Your task to perform on an android device: What's the weather today? Image 0: 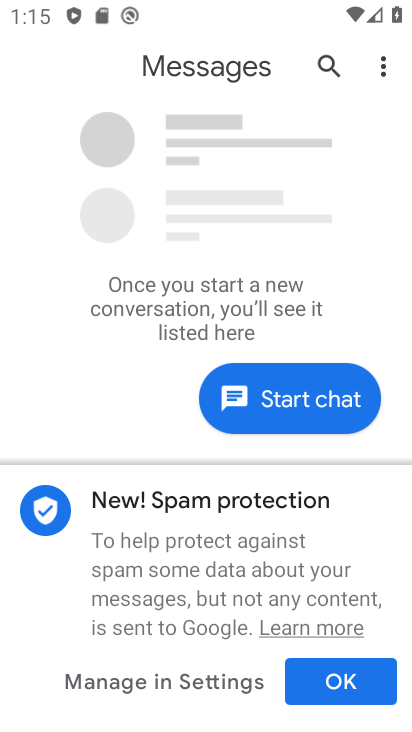
Step 0: press home button
Your task to perform on an android device: What's the weather today? Image 1: 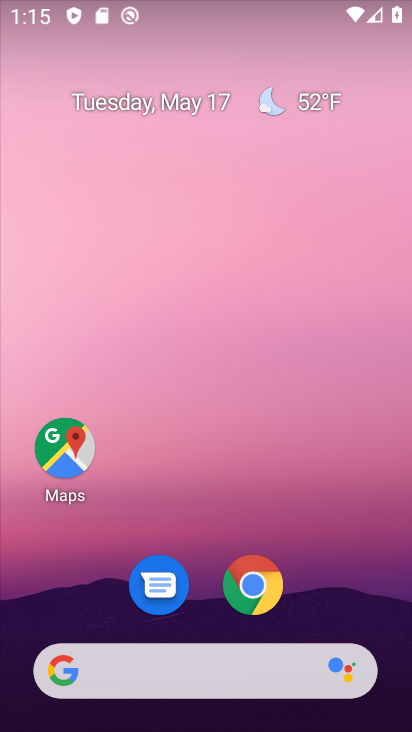
Step 1: click (271, 674)
Your task to perform on an android device: What's the weather today? Image 2: 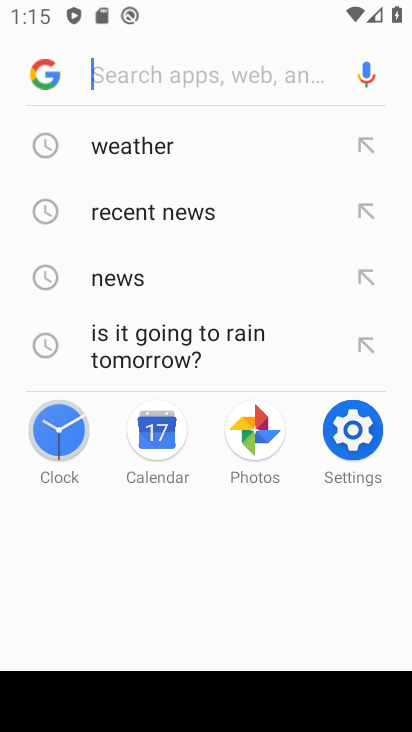
Step 2: click (142, 146)
Your task to perform on an android device: What's the weather today? Image 3: 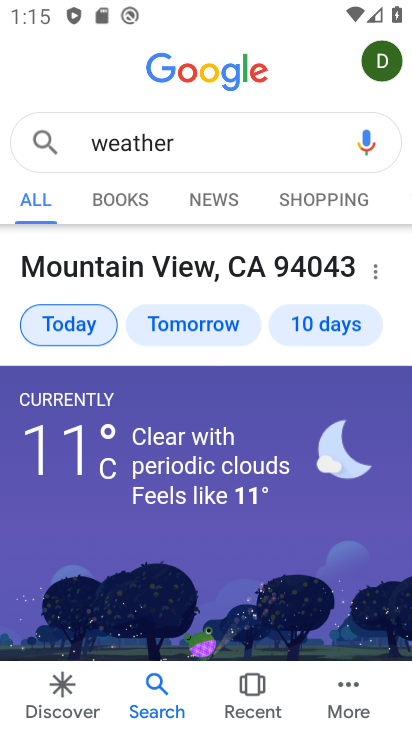
Step 3: click (84, 319)
Your task to perform on an android device: What's the weather today? Image 4: 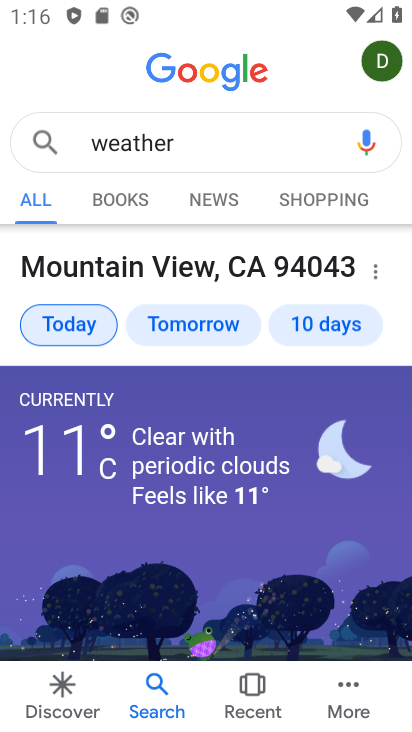
Step 4: task complete